Your task to perform on an android device: move a message to another label in the gmail app Image 0: 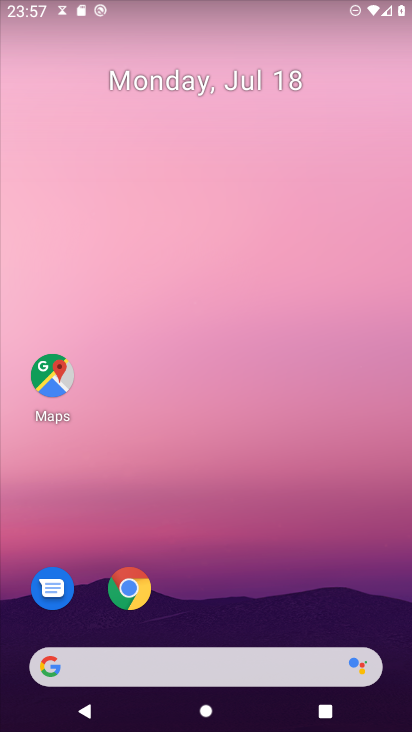
Step 0: press home button
Your task to perform on an android device: move a message to another label in the gmail app Image 1: 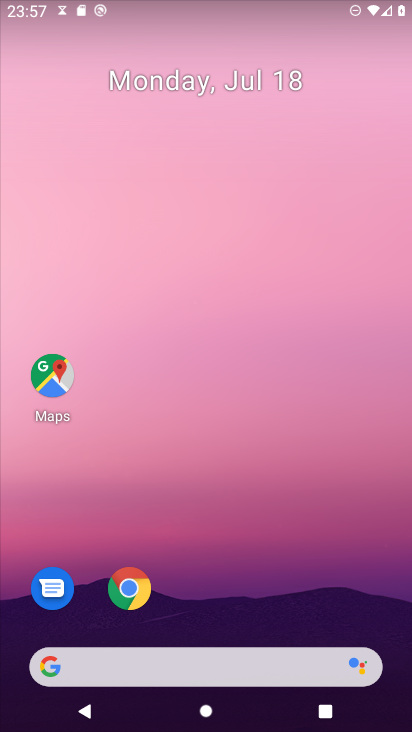
Step 1: drag from (289, 616) to (330, 91)
Your task to perform on an android device: move a message to another label in the gmail app Image 2: 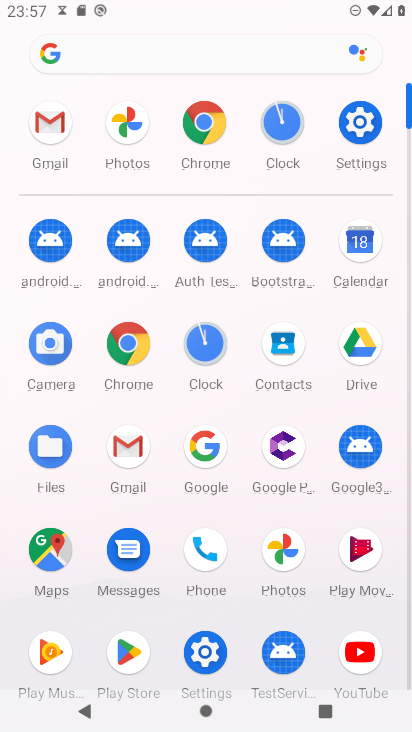
Step 2: click (127, 454)
Your task to perform on an android device: move a message to another label in the gmail app Image 3: 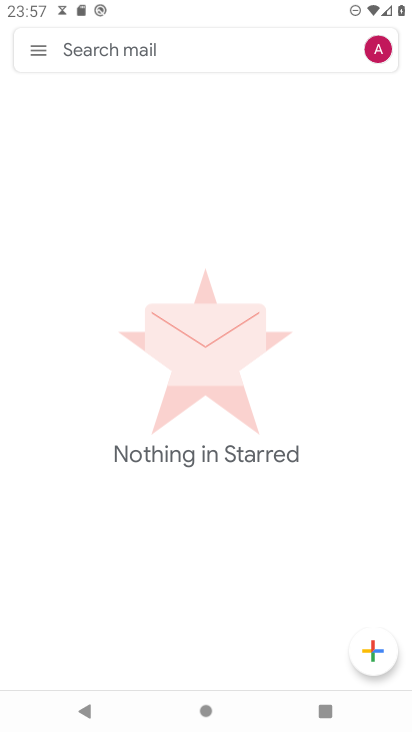
Step 3: click (36, 55)
Your task to perform on an android device: move a message to another label in the gmail app Image 4: 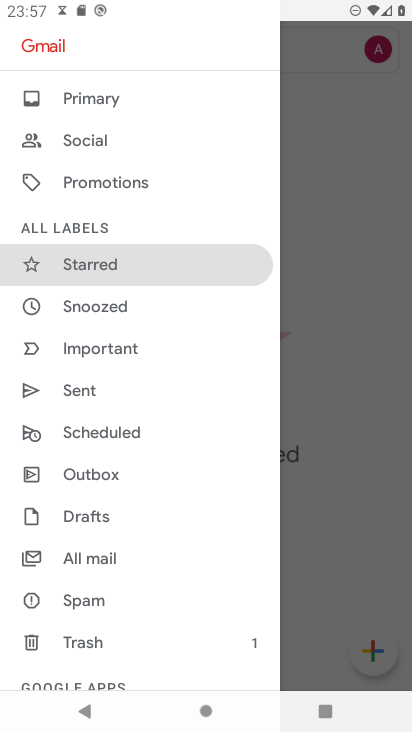
Step 4: click (86, 560)
Your task to perform on an android device: move a message to another label in the gmail app Image 5: 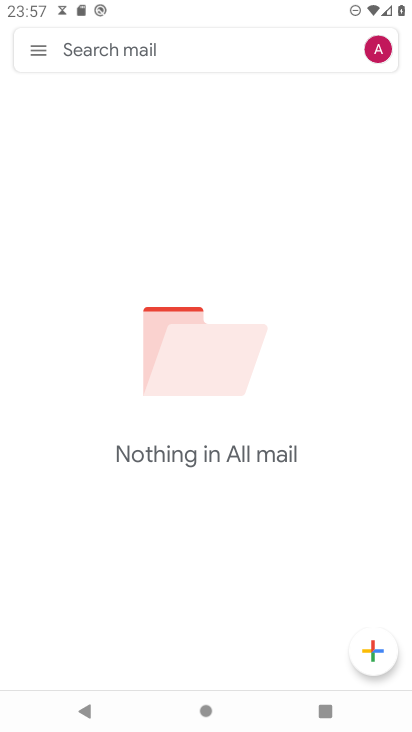
Step 5: task complete